Your task to perform on an android device: Empty the shopping cart on walmart.com. Add bose soundsport free to the cart on walmart.com, then select checkout. Image 0: 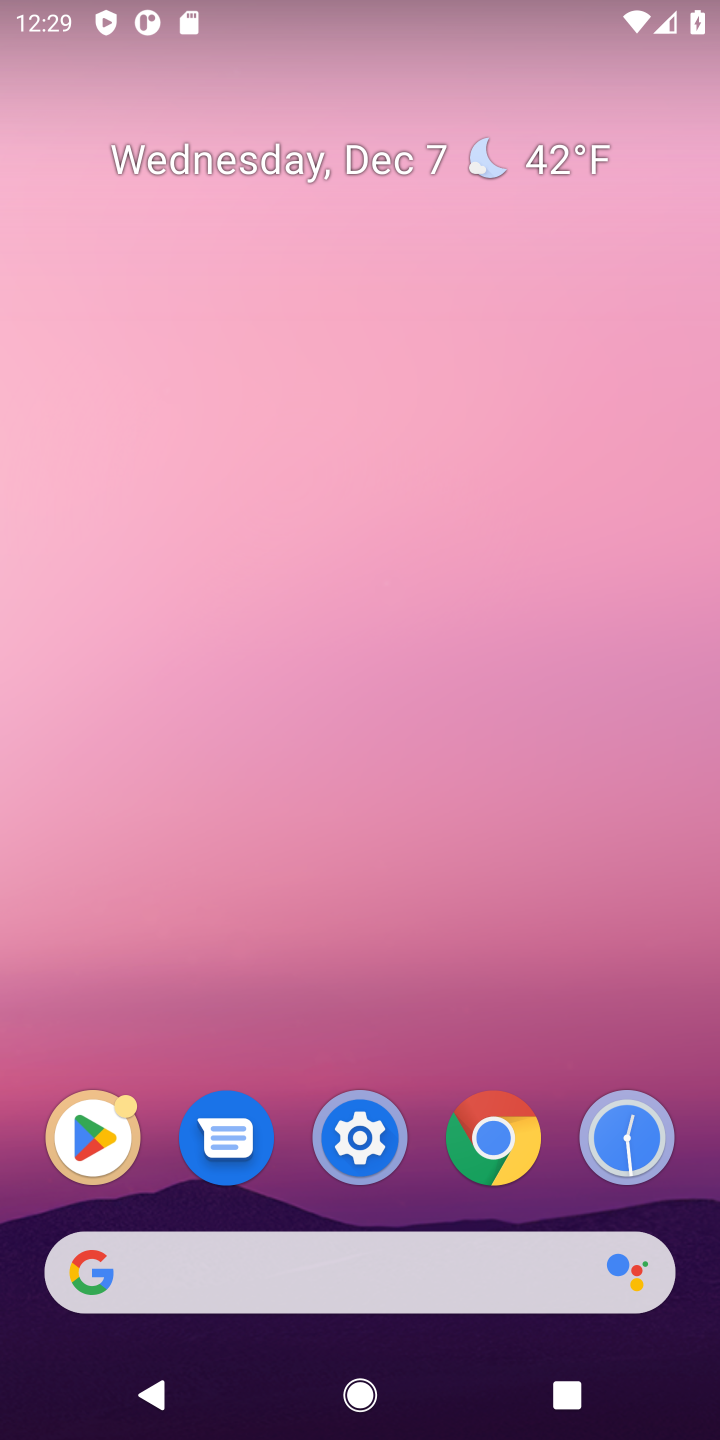
Step 0: click (347, 1272)
Your task to perform on an android device: Empty the shopping cart on walmart.com. Add bose soundsport free to the cart on walmart.com, then select checkout. Image 1: 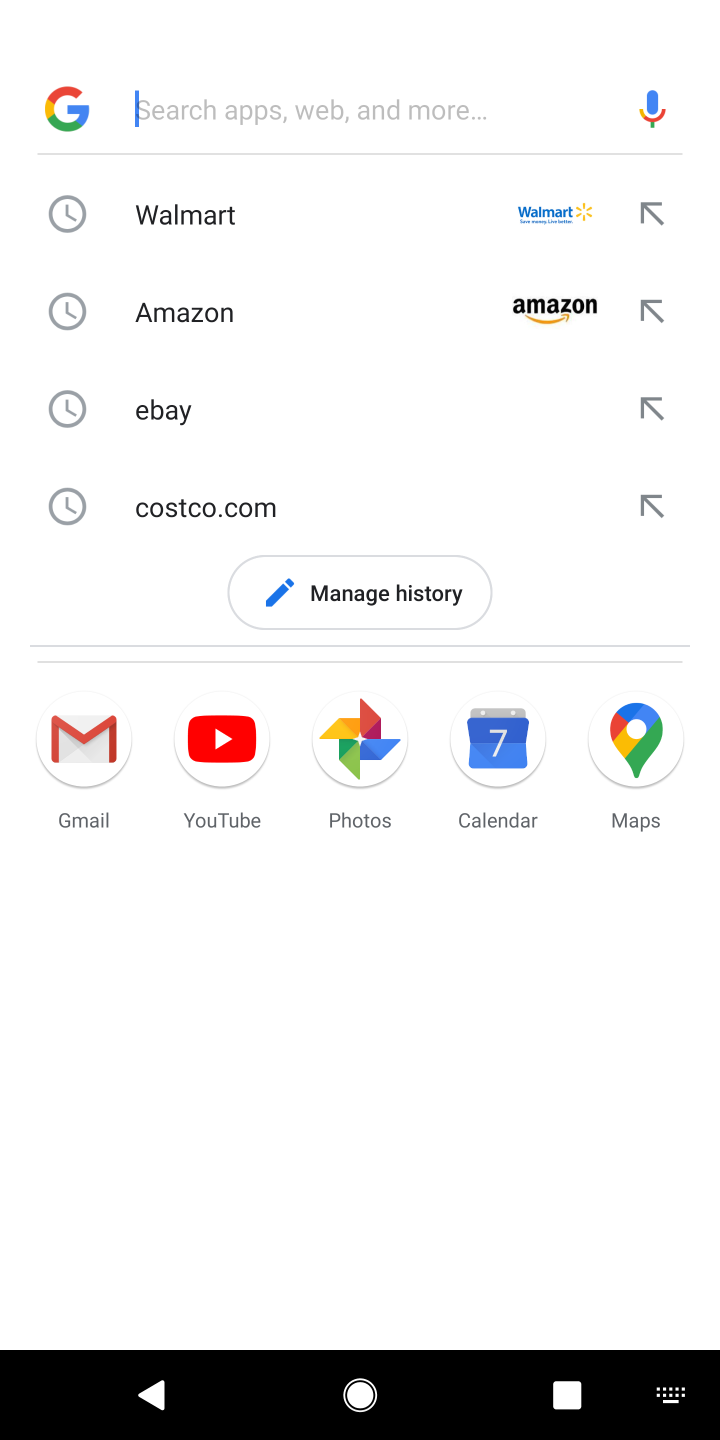
Step 1: type "walmart"
Your task to perform on an android device: Empty the shopping cart on walmart.com. Add bose soundsport free to the cart on walmart.com, then select checkout. Image 2: 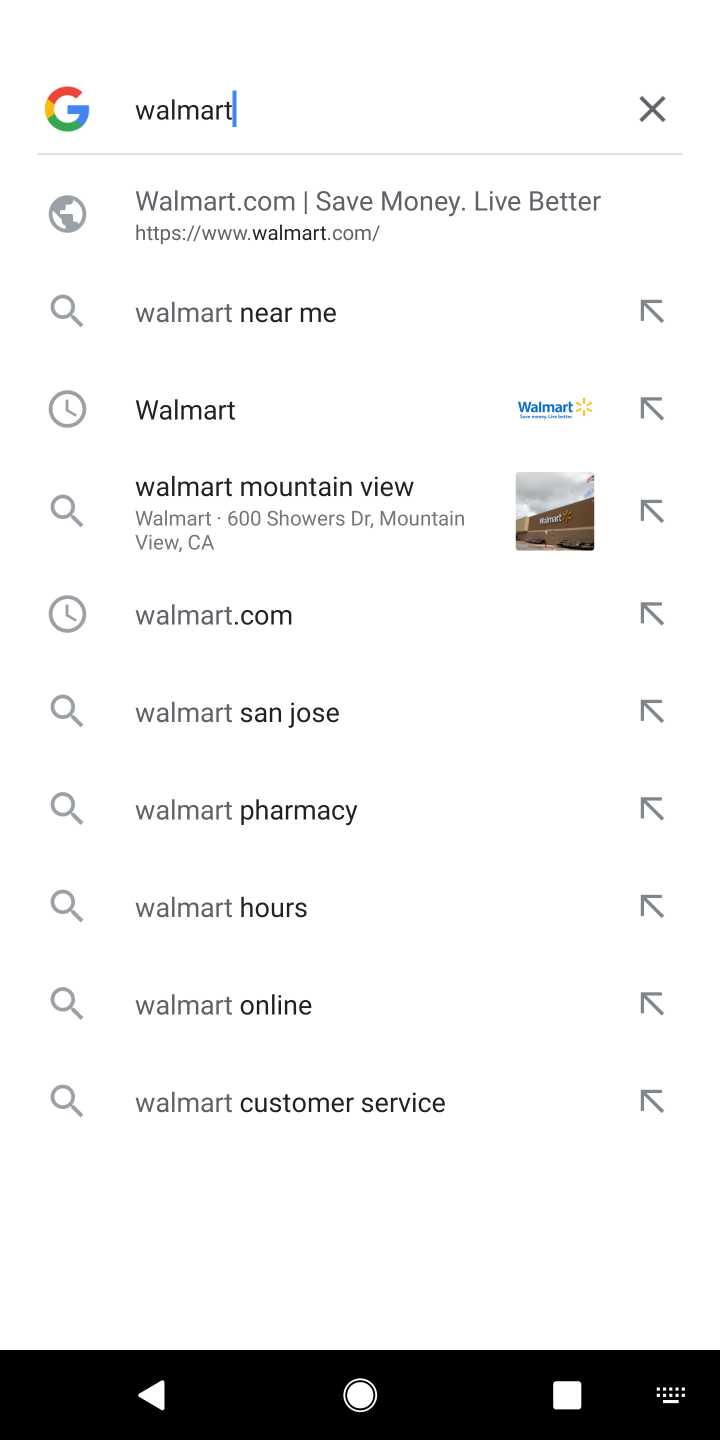
Step 2: click (438, 218)
Your task to perform on an android device: Empty the shopping cart on walmart.com. Add bose soundsport free to the cart on walmart.com, then select checkout. Image 3: 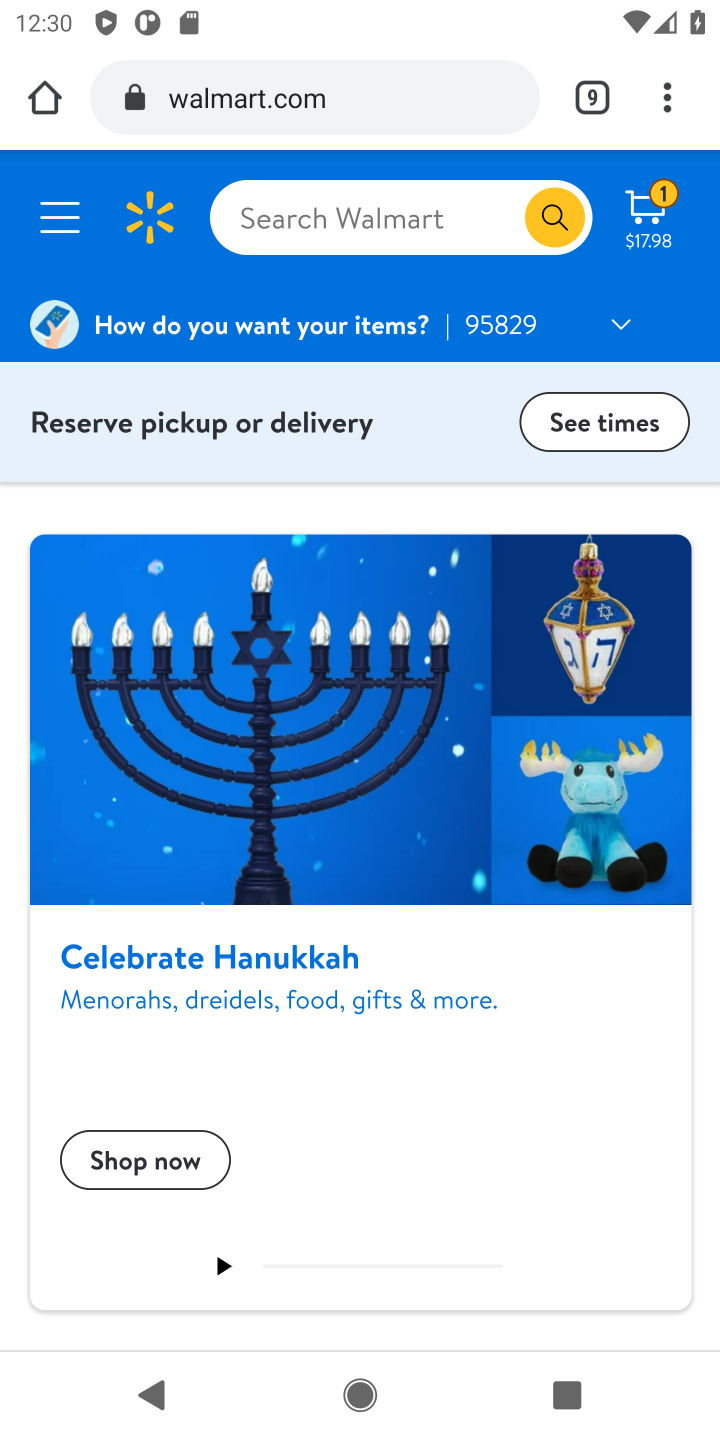
Step 3: click (253, 235)
Your task to perform on an android device: Empty the shopping cart on walmart.com. Add bose soundsport free to the cart on walmart.com, then select checkout. Image 4: 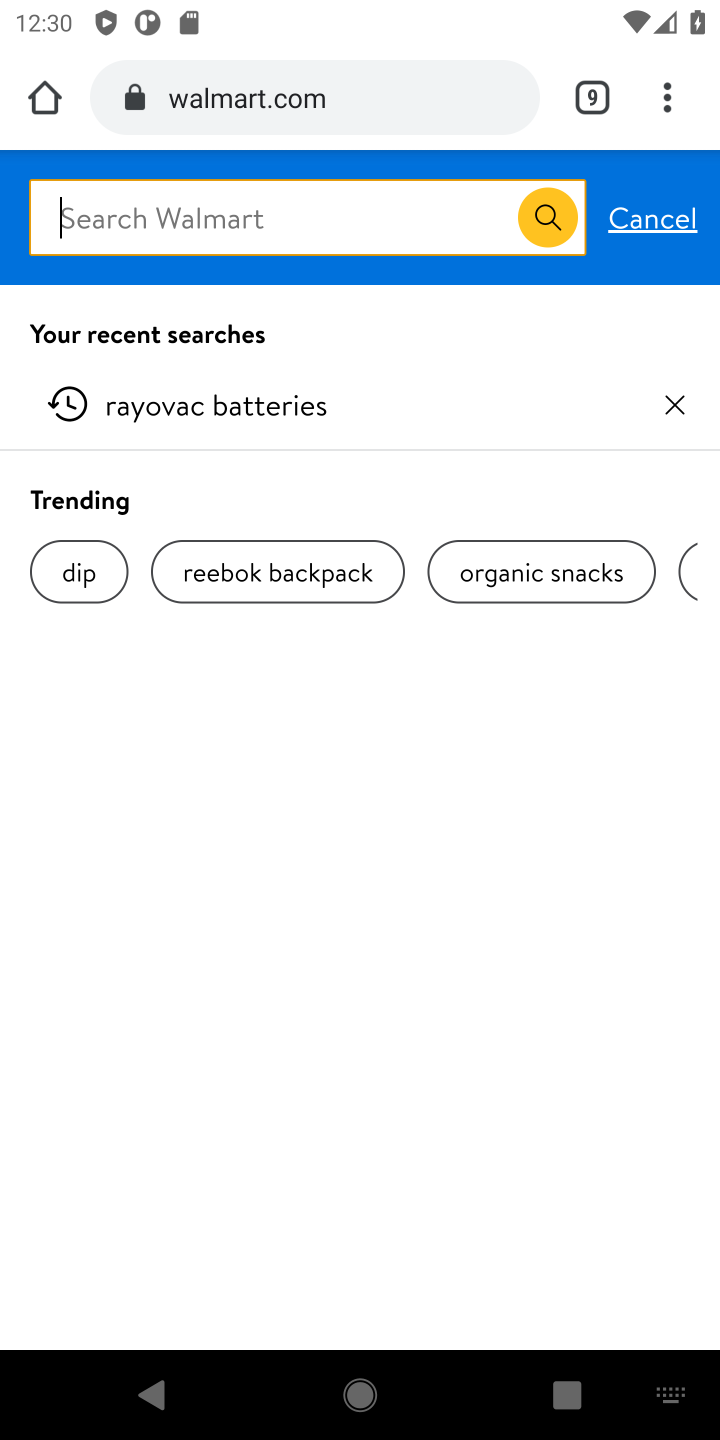
Step 4: type "bose soundsport"
Your task to perform on an android device: Empty the shopping cart on walmart.com. Add bose soundsport free to the cart on walmart.com, then select checkout. Image 5: 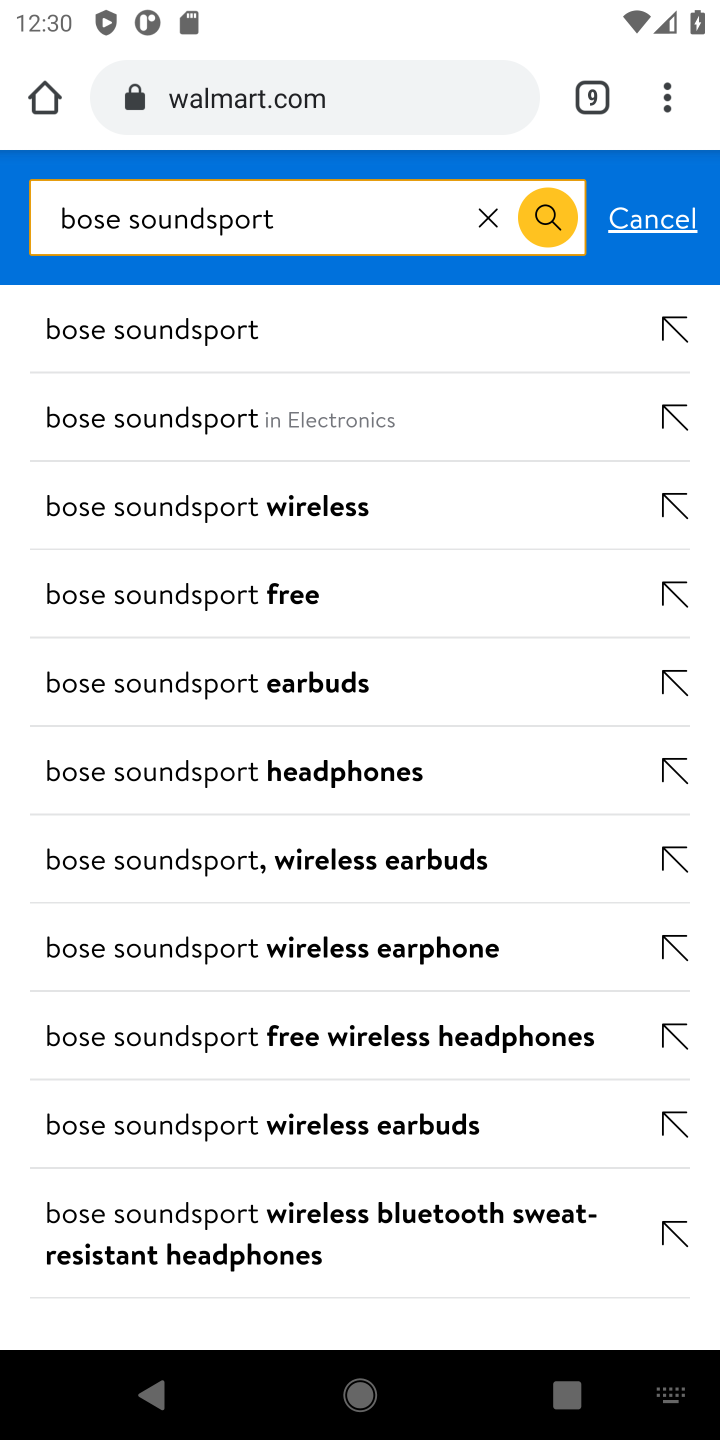
Step 5: click (279, 333)
Your task to perform on an android device: Empty the shopping cart on walmart.com. Add bose soundsport free to the cart on walmart.com, then select checkout. Image 6: 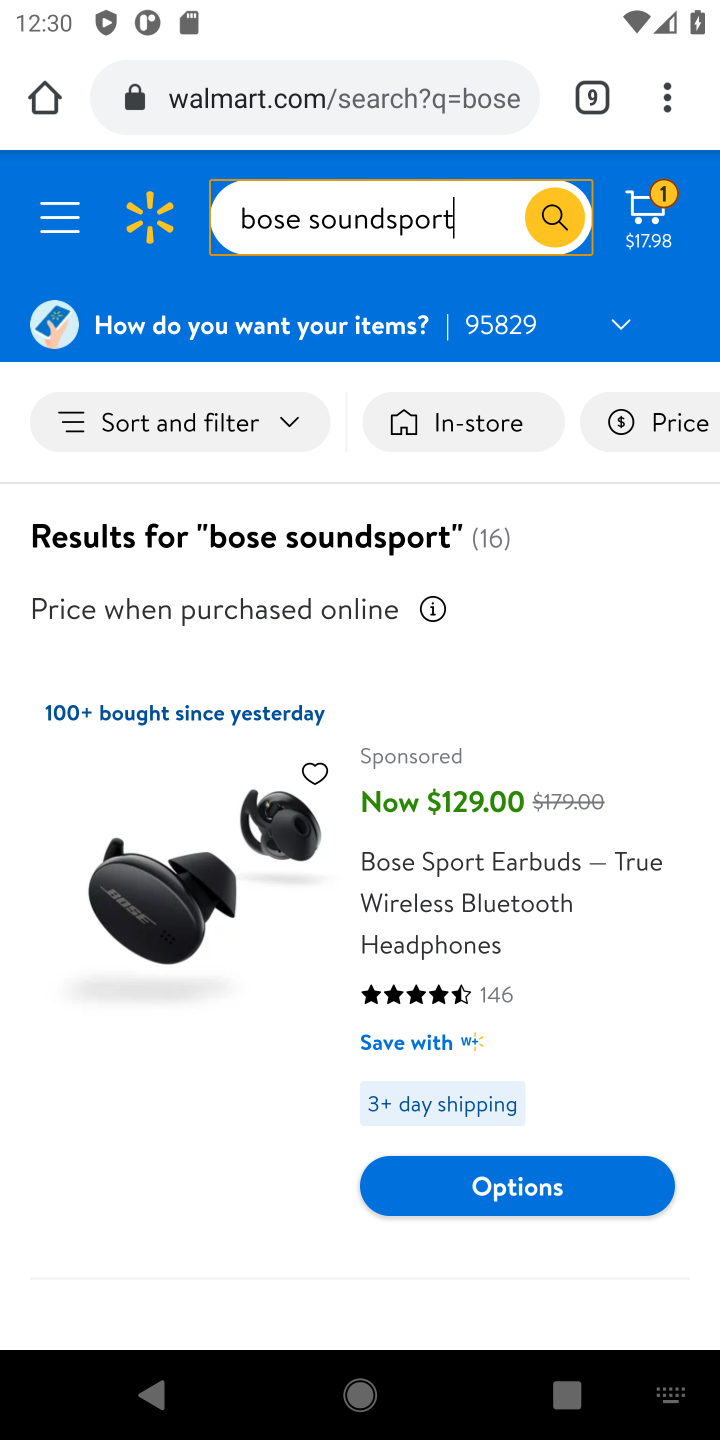
Step 6: click (530, 1187)
Your task to perform on an android device: Empty the shopping cart on walmart.com. Add bose soundsport free to the cart on walmart.com, then select checkout. Image 7: 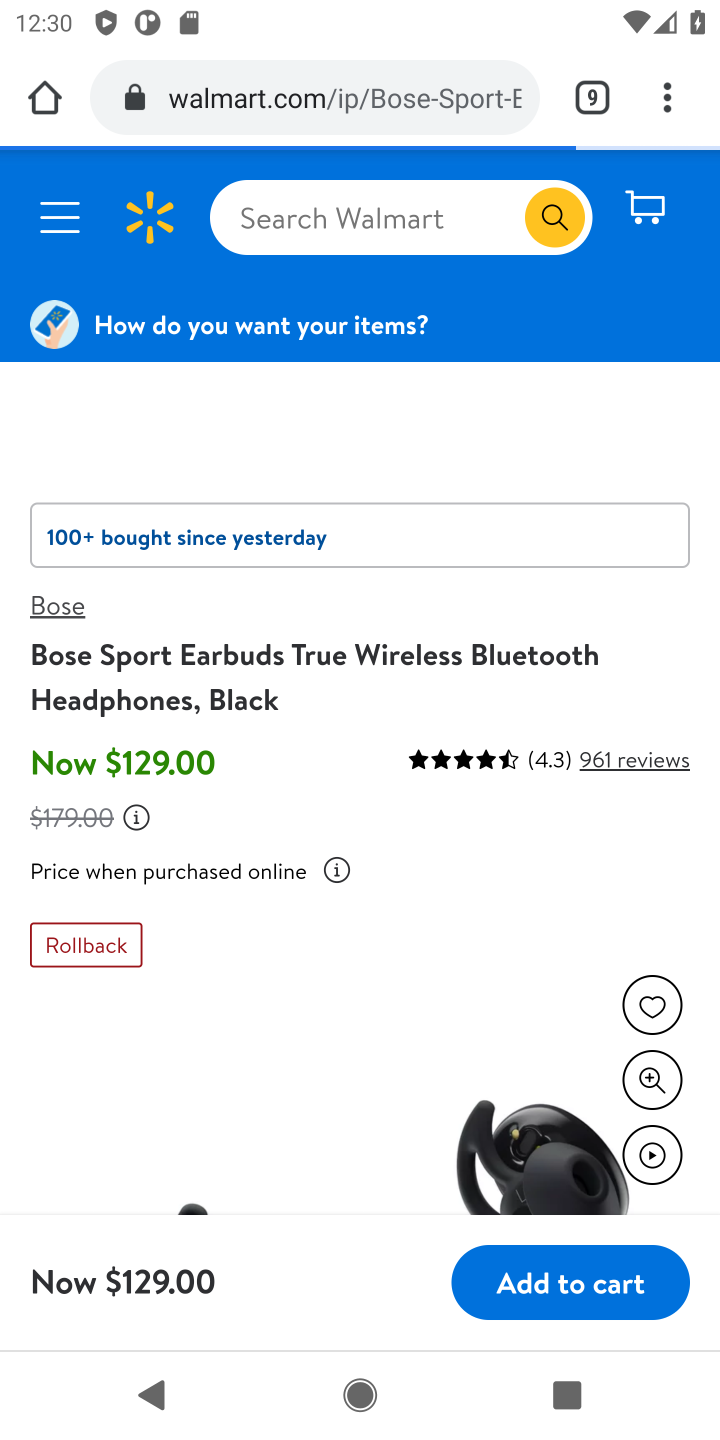
Step 7: task complete